Your task to perform on an android device: toggle show notifications on the lock screen Image 0: 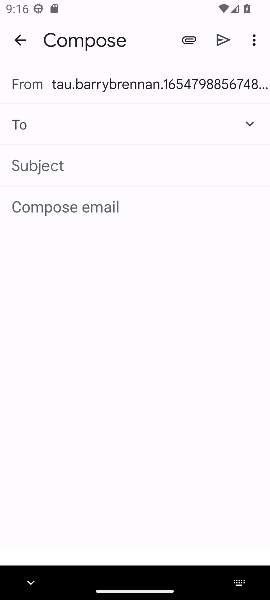
Step 0: press home button
Your task to perform on an android device: toggle show notifications on the lock screen Image 1: 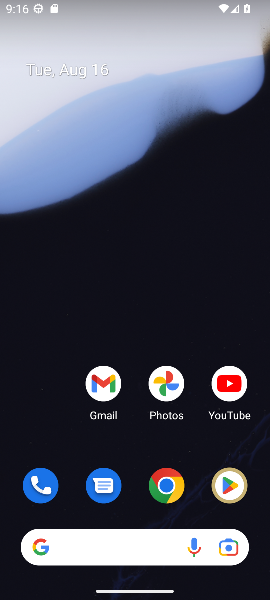
Step 1: drag from (205, 456) to (162, 211)
Your task to perform on an android device: toggle show notifications on the lock screen Image 2: 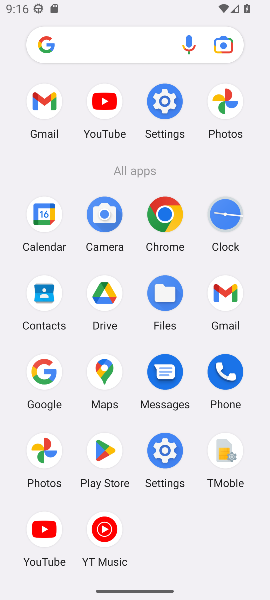
Step 2: click (158, 107)
Your task to perform on an android device: toggle show notifications on the lock screen Image 3: 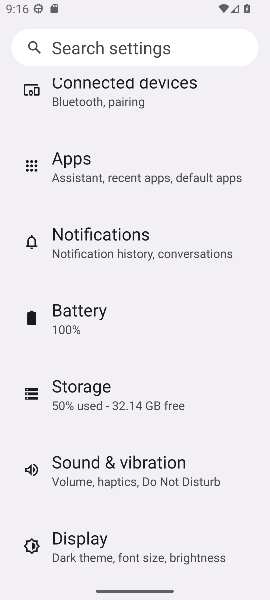
Step 3: click (83, 246)
Your task to perform on an android device: toggle show notifications on the lock screen Image 4: 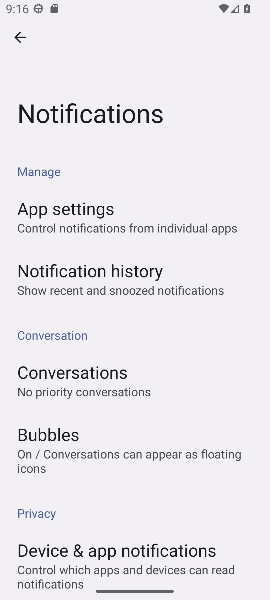
Step 4: drag from (220, 522) to (170, 306)
Your task to perform on an android device: toggle show notifications on the lock screen Image 5: 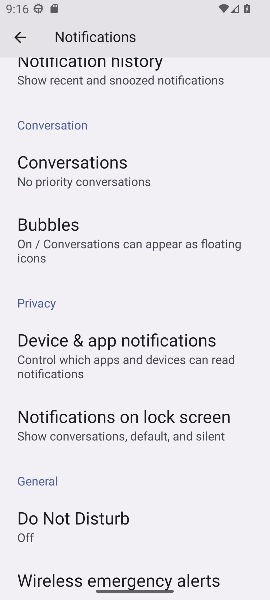
Step 5: click (178, 426)
Your task to perform on an android device: toggle show notifications on the lock screen Image 6: 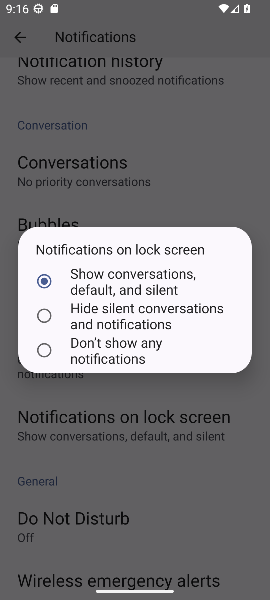
Step 6: click (96, 344)
Your task to perform on an android device: toggle show notifications on the lock screen Image 7: 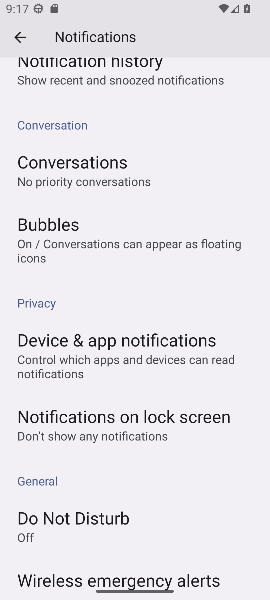
Step 7: task complete